Your task to perform on an android device: Open sound settings Image 0: 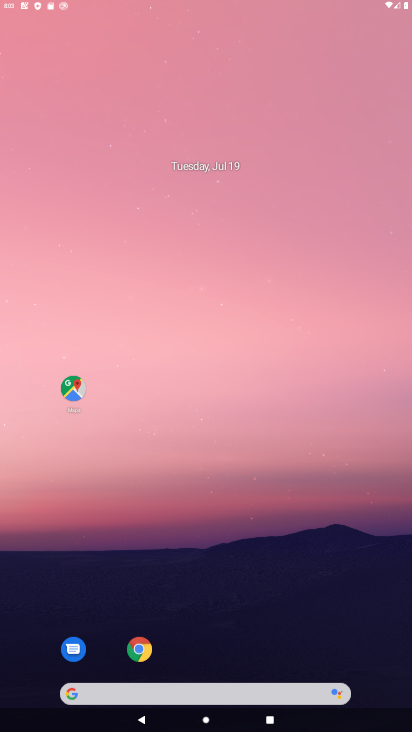
Step 0: press home button
Your task to perform on an android device: Open sound settings Image 1: 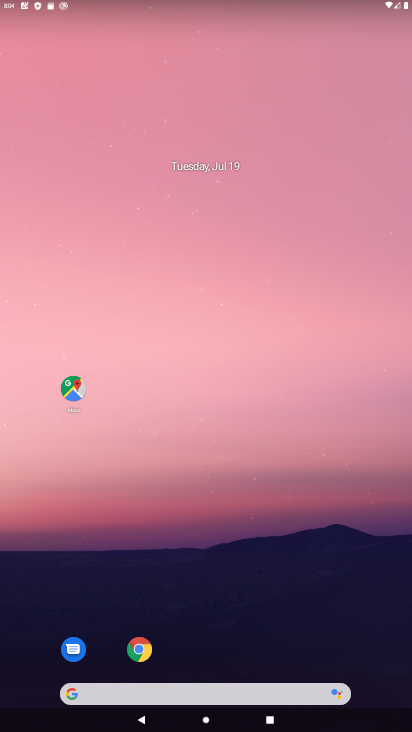
Step 1: drag from (220, 661) to (250, 30)
Your task to perform on an android device: Open sound settings Image 2: 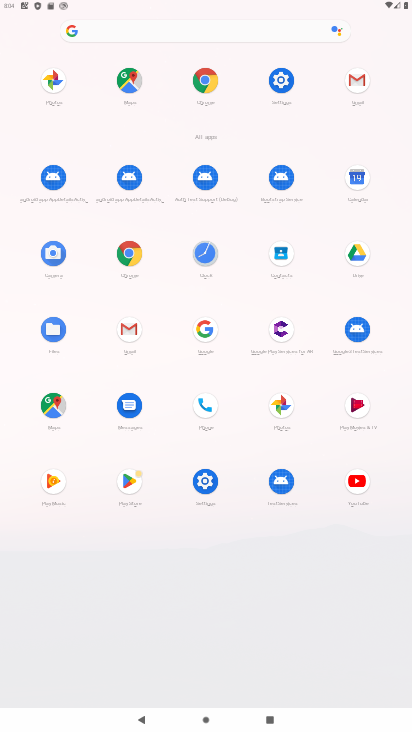
Step 2: click (204, 479)
Your task to perform on an android device: Open sound settings Image 3: 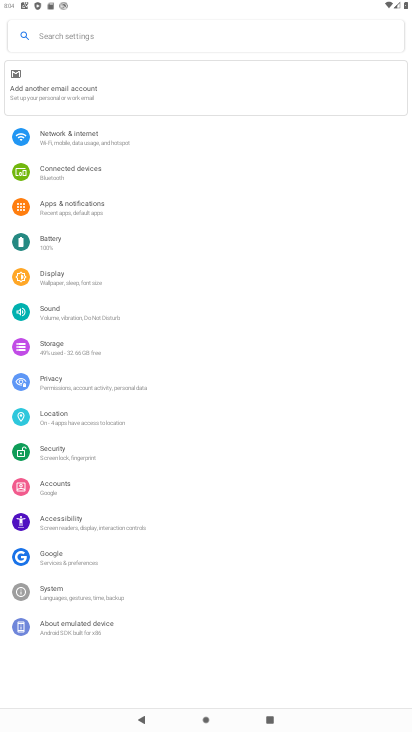
Step 3: click (63, 307)
Your task to perform on an android device: Open sound settings Image 4: 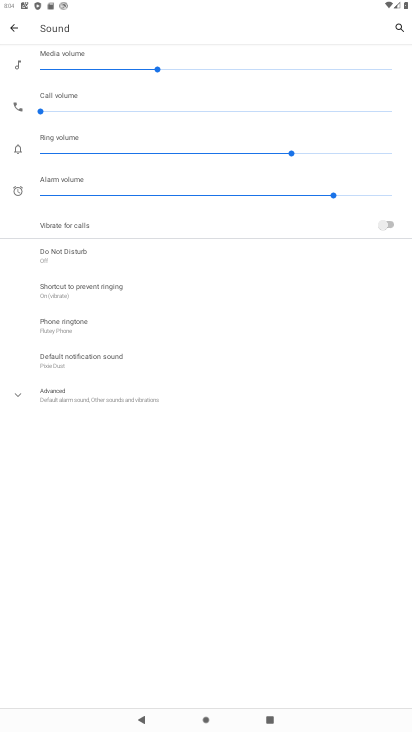
Step 4: click (25, 401)
Your task to perform on an android device: Open sound settings Image 5: 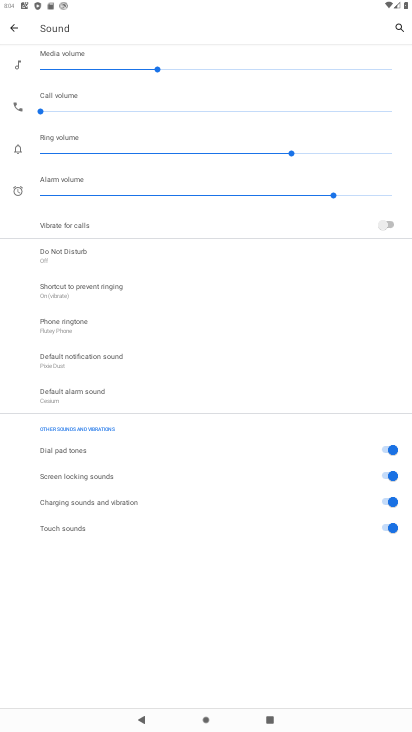
Step 5: task complete